Your task to perform on an android device: Open location settings Image 0: 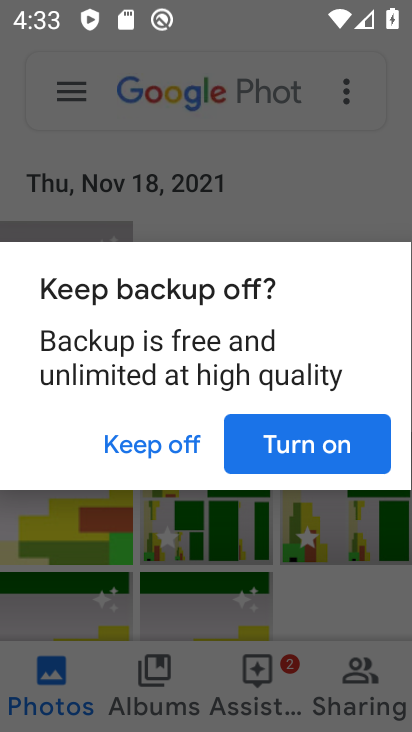
Step 0: press home button
Your task to perform on an android device: Open location settings Image 1: 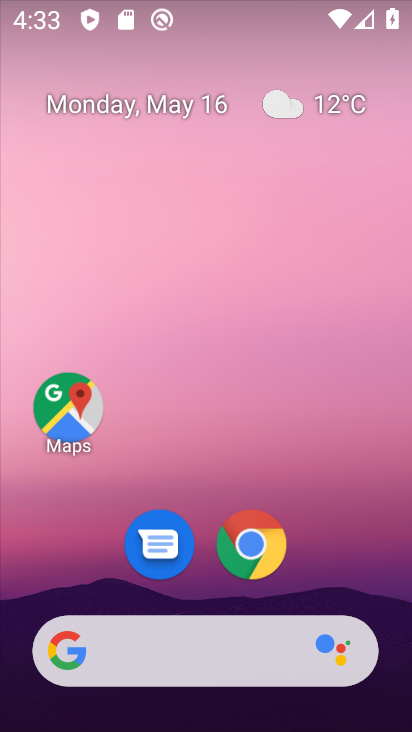
Step 1: drag from (335, 562) to (268, 100)
Your task to perform on an android device: Open location settings Image 2: 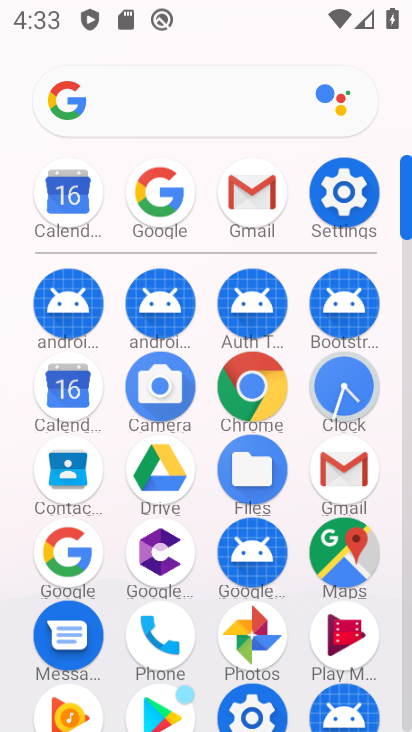
Step 2: click (343, 191)
Your task to perform on an android device: Open location settings Image 3: 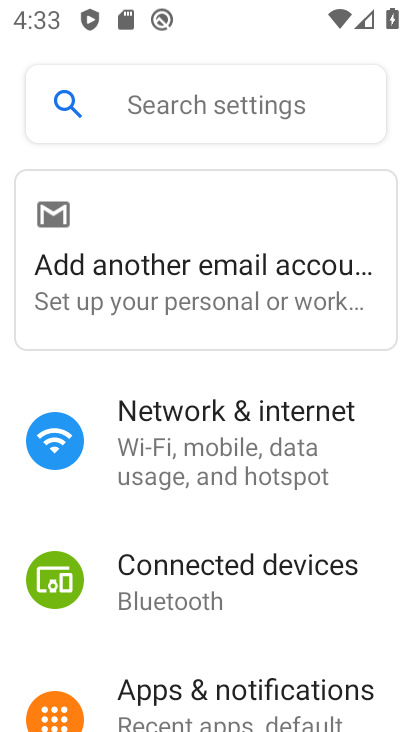
Step 3: drag from (178, 507) to (200, 377)
Your task to perform on an android device: Open location settings Image 4: 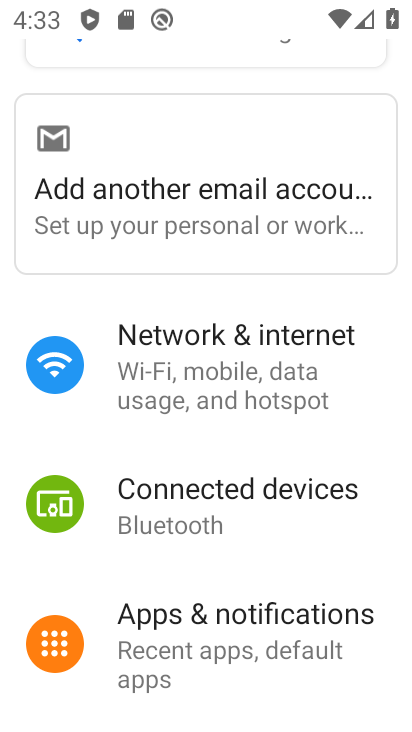
Step 4: drag from (177, 466) to (209, 361)
Your task to perform on an android device: Open location settings Image 5: 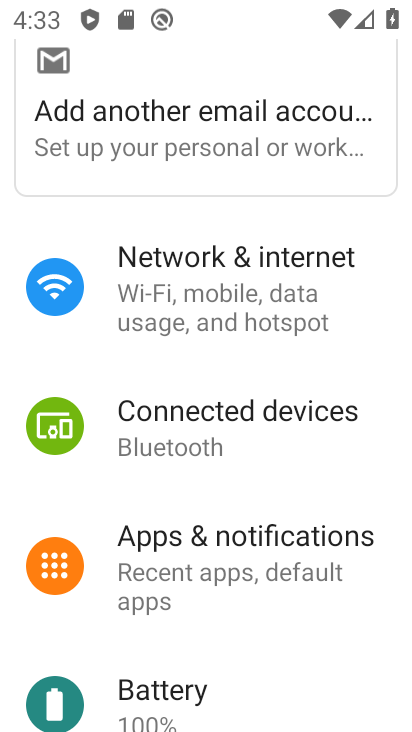
Step 5: drag from (181, 464) to (229, 359)
Your task to perform on an android device: Open location settings Image 6: 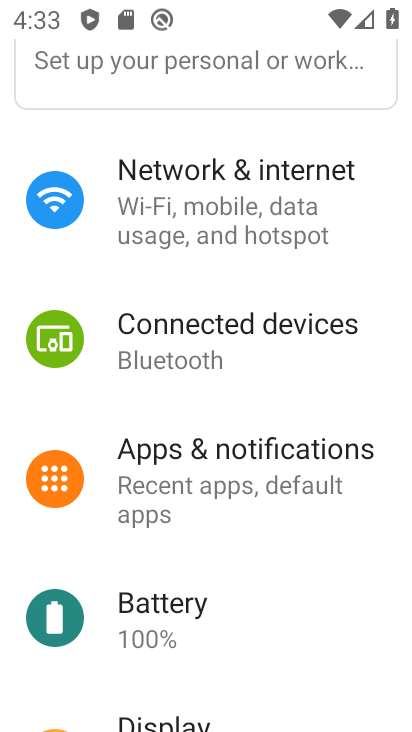
Step 6: drag from (145, 534) to (221, 403)
Your task to perform on an android device: Open location settings Image 7: 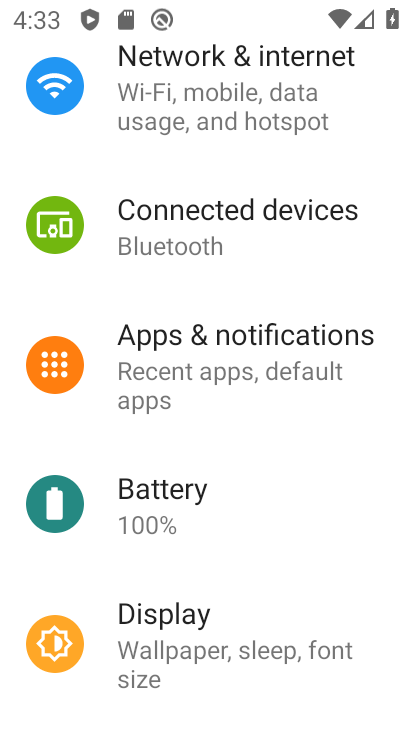
Step 7: drag from (173, 463) to (292, 309)
Your task to perform on an android device: Open location settings Image 8: 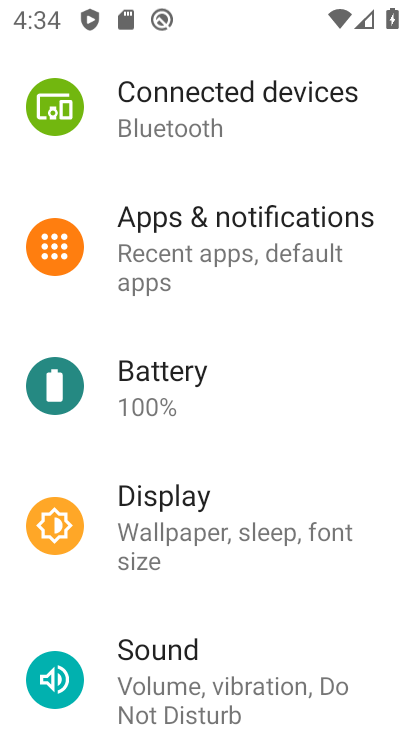
Step 8: drag from (196, 401) to (220, 369)
Your task to perform on an android device: Open location settings Image 9: 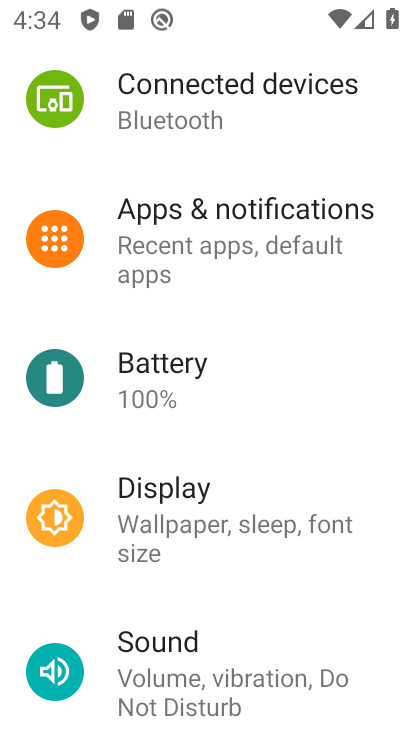
Step 9: drag from (127, 579) to (174, 408)
Your task to perform on an android device: Open location settings Image 10: 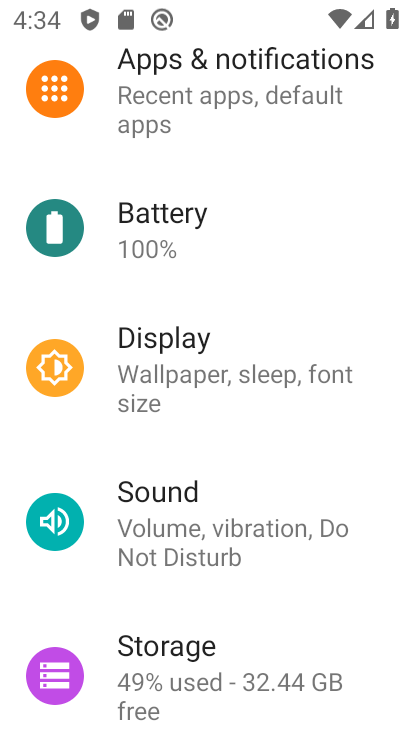
Step 10: drag from (133, 610) to (169, 440)
Your task to perform on an android device: Open location settings Image 11: 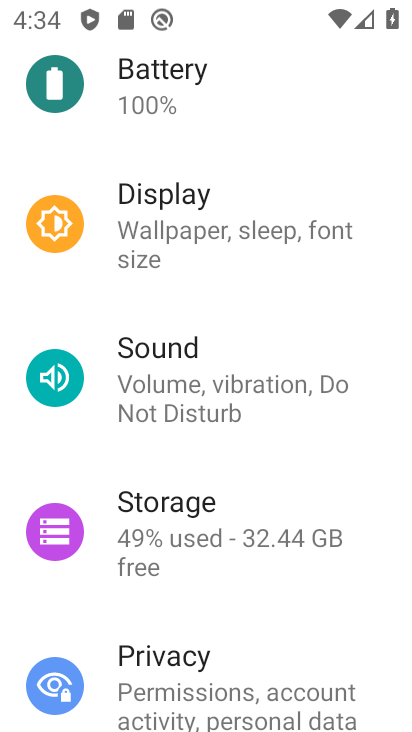
Step 11: drag from (91, 614) to (197, 434)
Your task to perform on an android device: Open location settings Image 12: 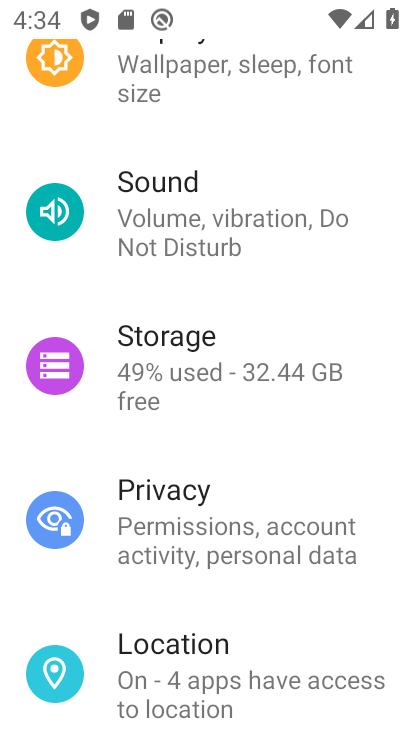
Step 12: drag from (141, 588) to (256, 391)
Your task to perform on an android device: Open location settings Image 13: 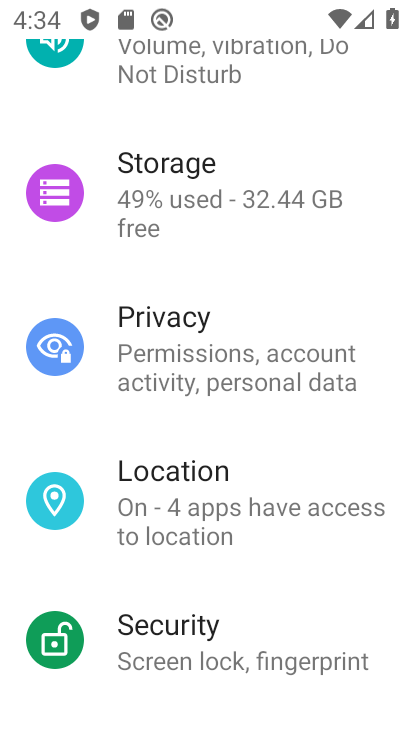
Step 13: click (163, 505)
Your task to perform on an android device: Open location settings Image 14: 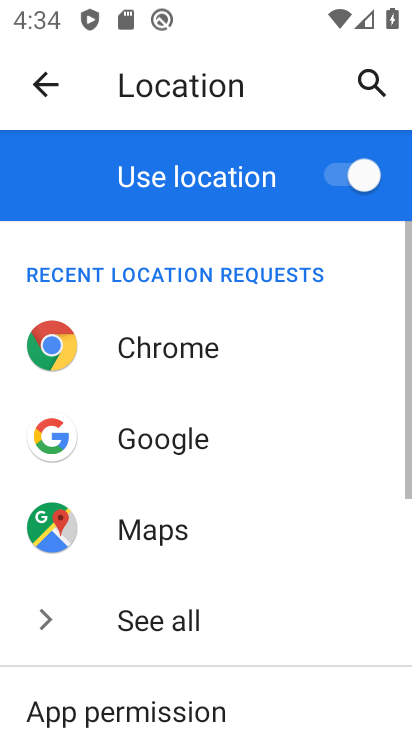
Step 14: task complete